Your task to perform on an android device: check storage Image 0: 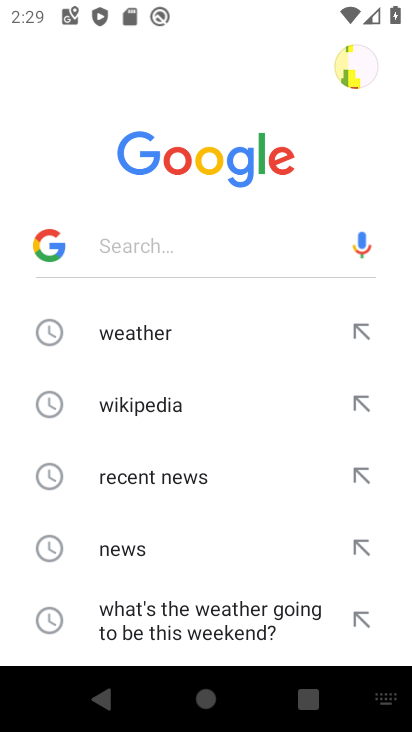
Step 0: press back button
Your task to perform on an android device: check storage Image 1: 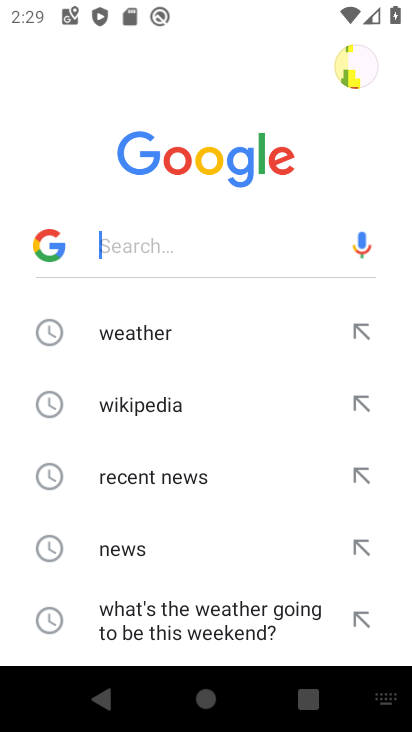
Step 1: press back button
Your task to perform on an android device: check storage Image 2: 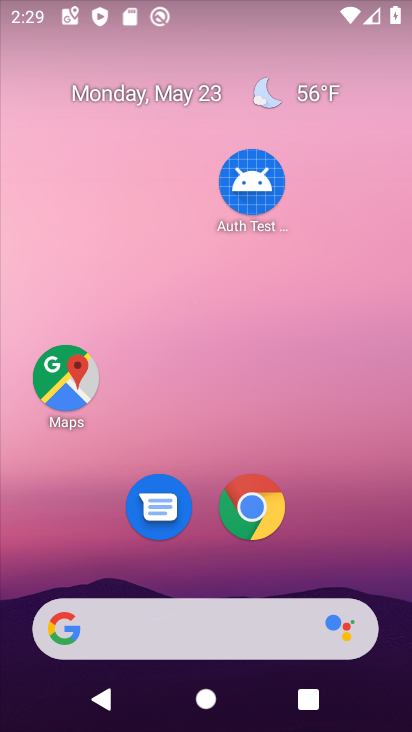
Step 2: drag from (241, 693) to (188, 103)
Your task to perform on an android device: check storage Image 3: 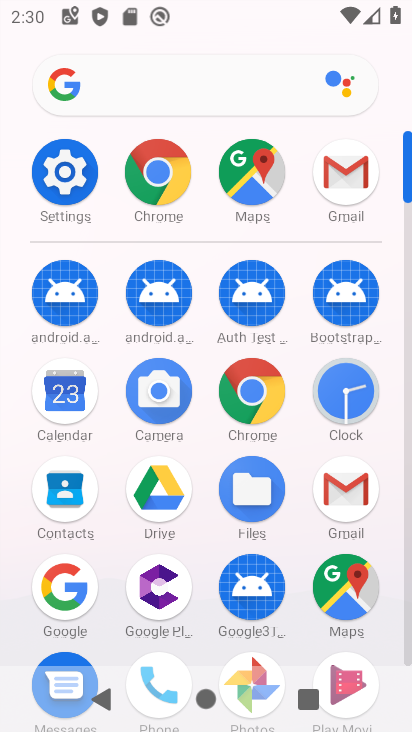
Step 3: click (60, 176)
Your task to perform on an android device: check storage Image 4: 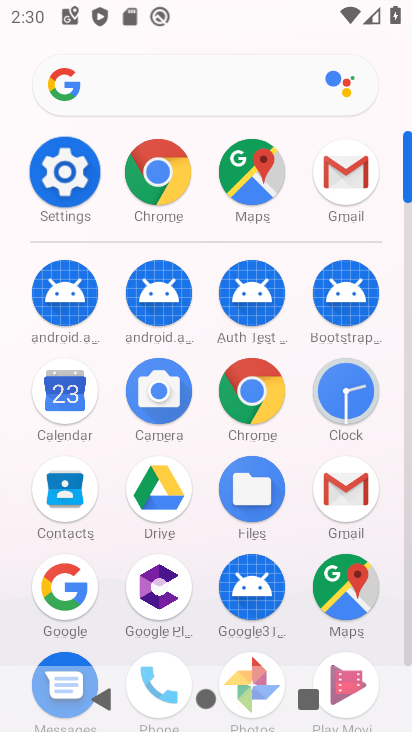
Step 4: click (60, 176)
Your task to perform on an android device: check storage Image 5: 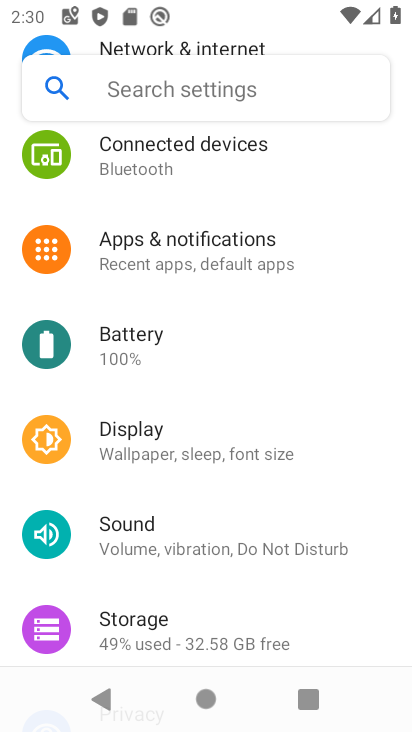
Step 5: drag from (190, 219) to (201, 397)
Your task to perform on an android device: check storage Image 6: 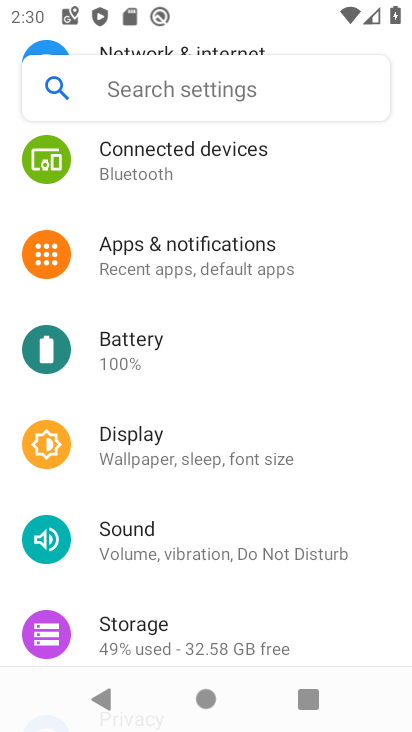
Step 6: drag from (185, 319) to (192, 551)
Your task to perform on an android device: check storage Image 7: 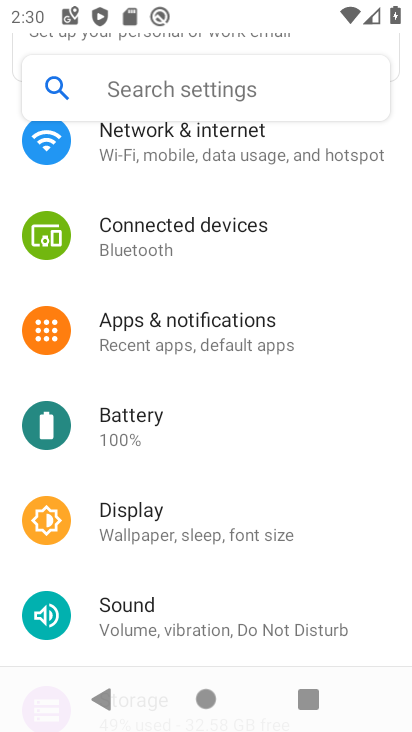
Step 7: drag from (124, 194) to (164, 598)
Your task to perform on an android device: check storage Image 8: 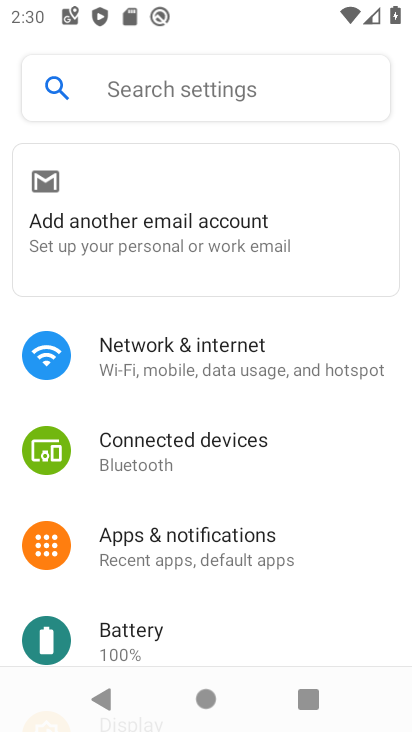
Step 8: drag from (170, 270) to (268, 550)
Your task to perform on an android device: check storage Image 9: 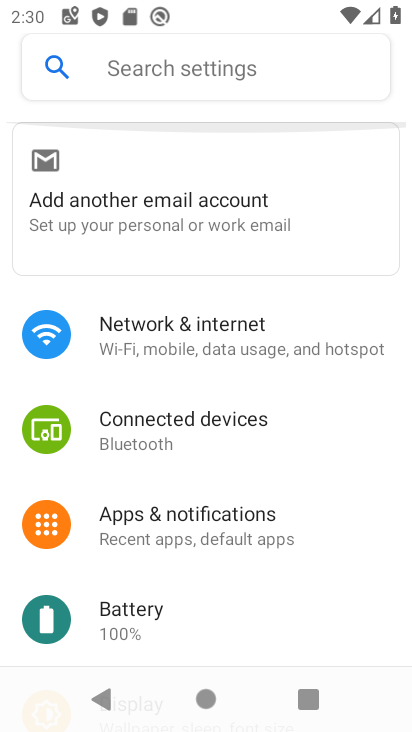
Step 9: drag from (192, 218) to (199, 452)
Your task to perform on an android device: check storage Image 10: 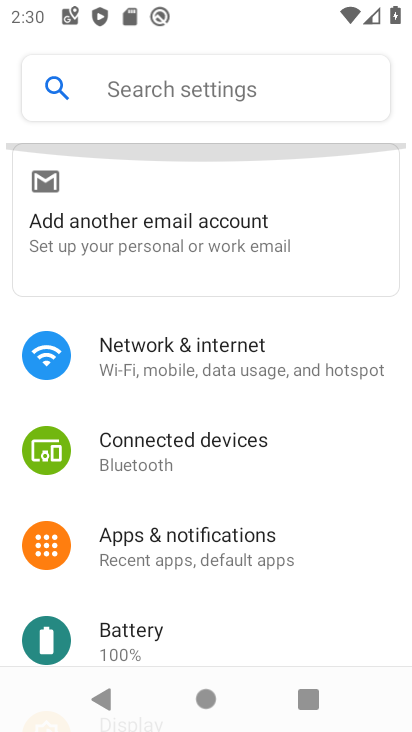
Step 10: drag from (131, 282) to (159, 549)
Your task to perform on an android device: check storage Image 11: 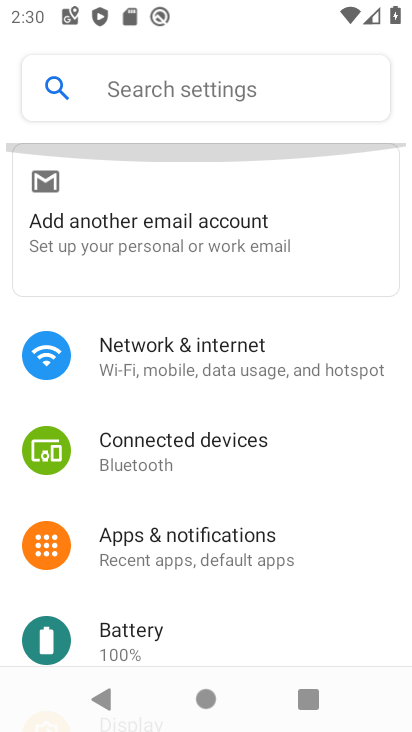
Step 11: drag from (115, 256) to (163, 624)
Your task to perform on an android device: check storage Image 12: 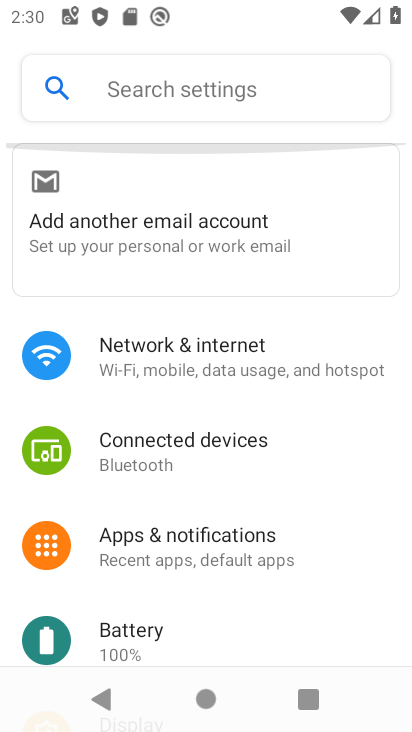
Step 12: drag from (178, 282) to (173, 529)
Your task to perform on an android device: check storage Image 13: 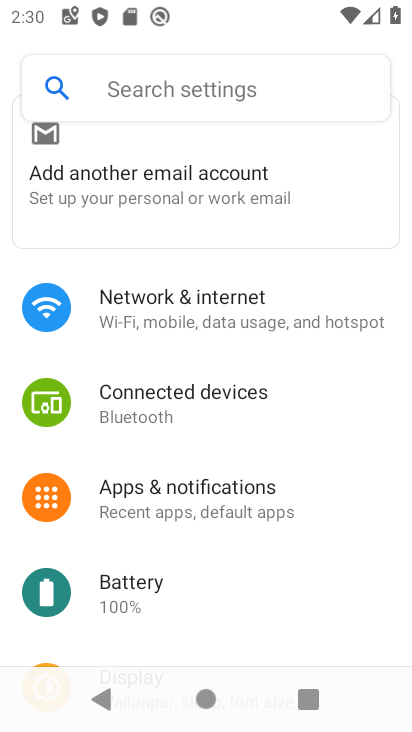
Step 13: drag from (148, 244) to (141, 552)
Your task to perform on an android device: check storage Image 14: 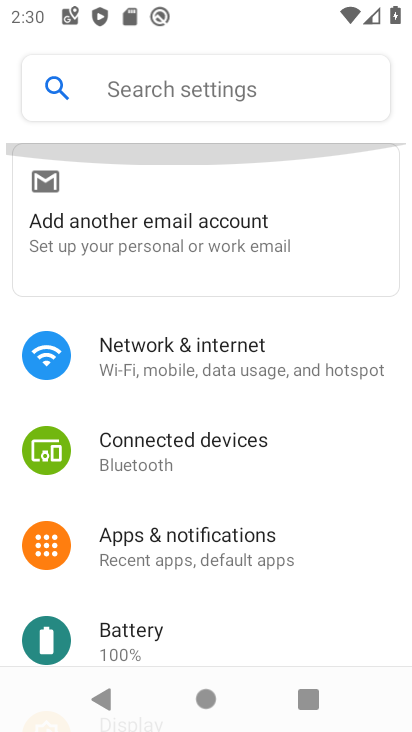
Step 14: drag from (153, 267) to (202, 619)
Your task to perform on an android device: check storage Image 15: 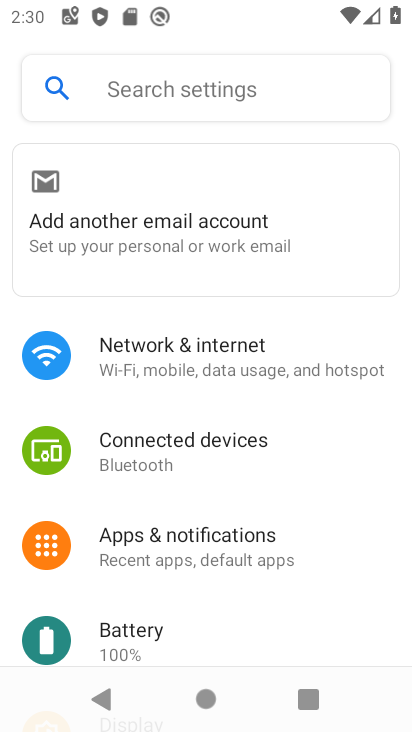
Step 15: drag from (155, 516) to (168, 123)
Your task to perform on an android device: check storage Image 16: 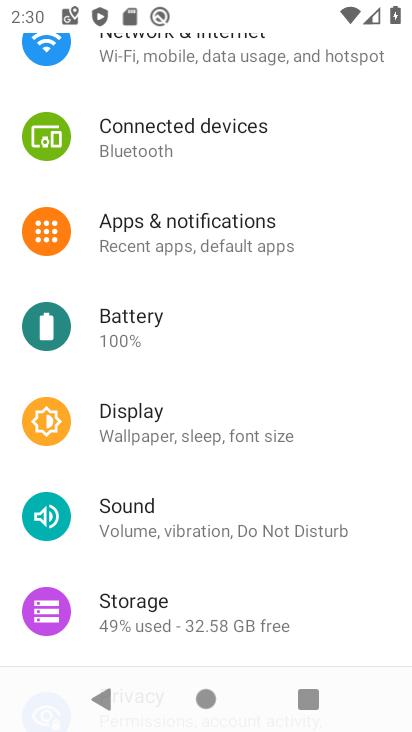
Step 16: drag from (176, 464) to (160, 117)
Your task to perform on an android device: check storage Image 17: 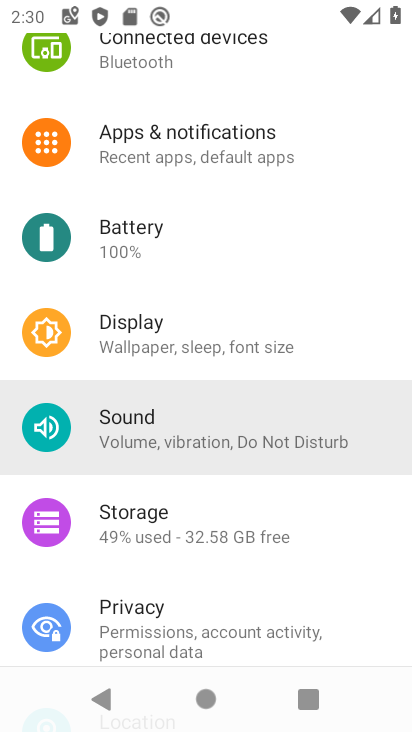
Step 17: drag from (210, 455) to (218, 85)
Your task to perform on an android device: check storage Image 18: 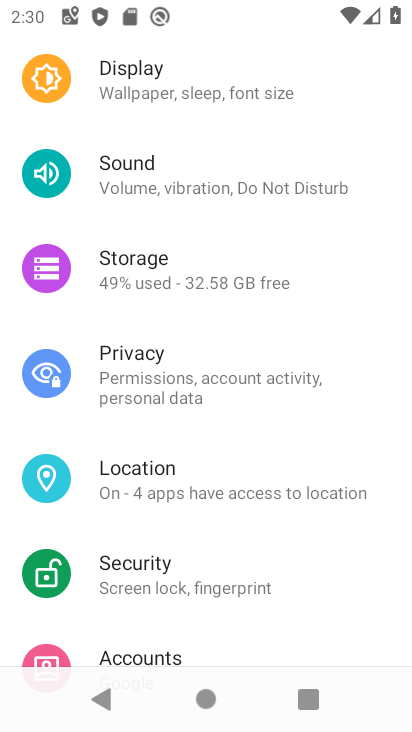
Step 18: drag from (185, 493) to (164, 214)
Your task to perform on an android device: check storage Image 19: 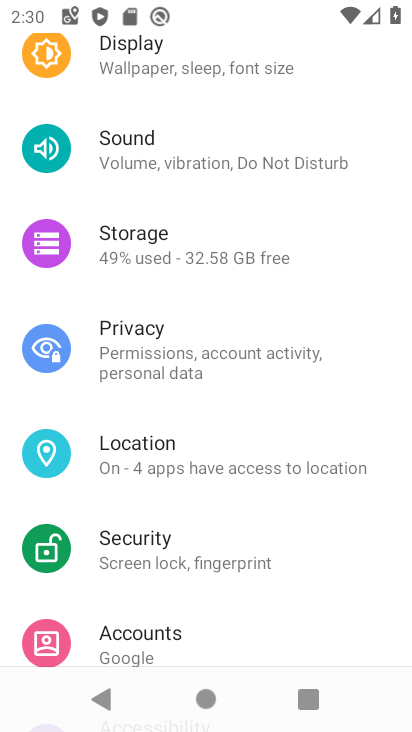
Step 19: drag from (190, 429) to (190, 157)
Your task to perform on an android device: check storage Image 20: 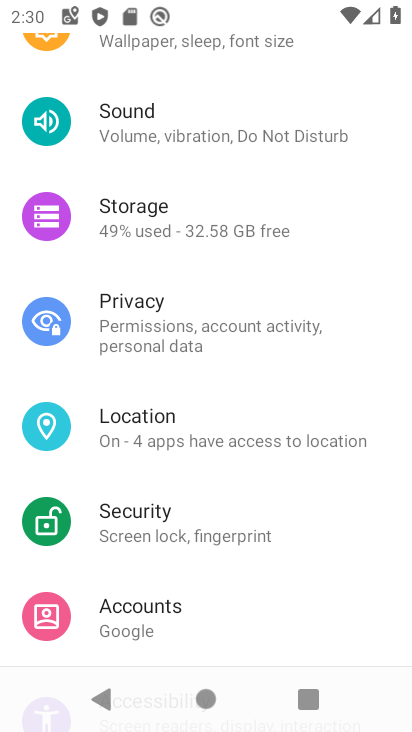
Step 20: click (131, 211)
Your task to perform on an android device: check storage Image 21: 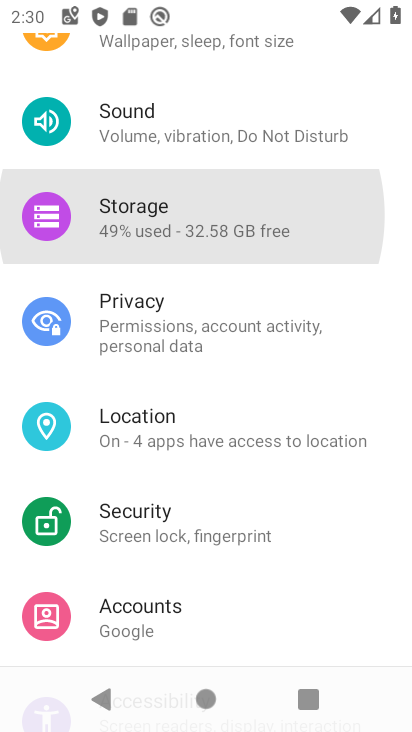
Step 21: click (131, 211)
Your task to perform on an android device: check storage Image 22: 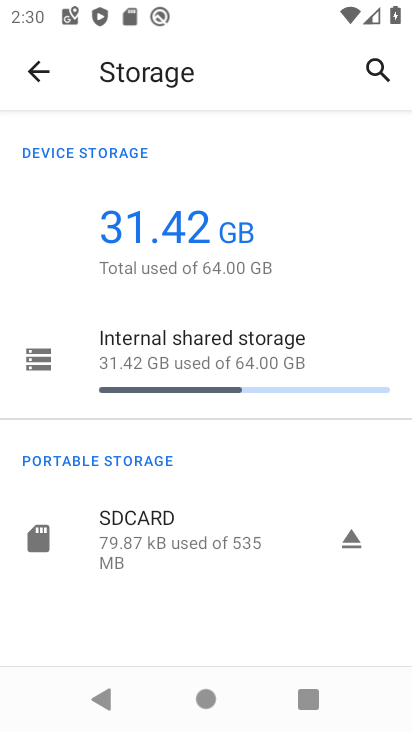
Step 22: task complete